Your task to perform on an android device: Open Android settings Image 0: 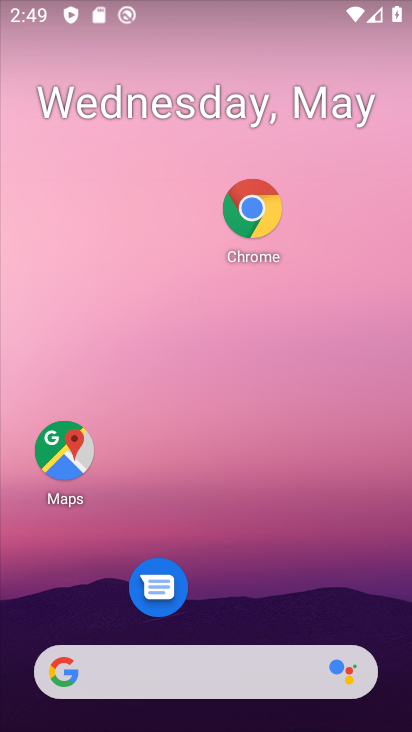
Step 0: drag from (214, 602) to (163, 19)
Your task to perform on an android device: Open Android settings Image 1: 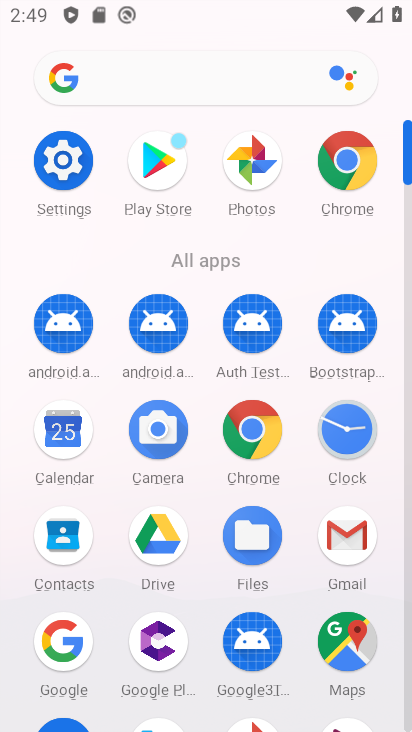
Step 1: click (45, 169)
Your task to perform on an android device: Open Android settings Image 2: 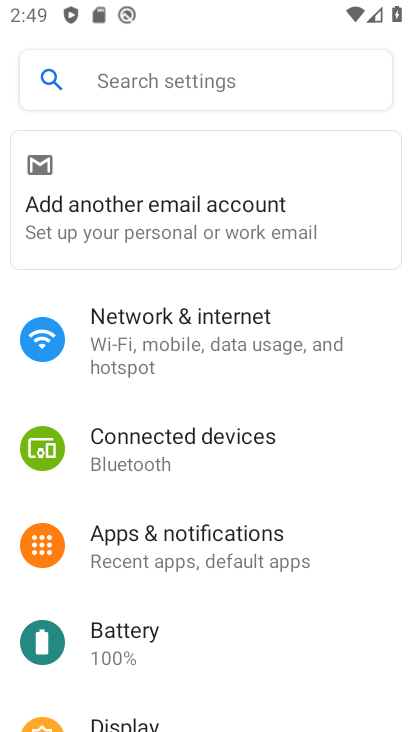
Step 2: task complete